Your task to perform on an android device: toggle notifications settings in the gmail app Image 0: 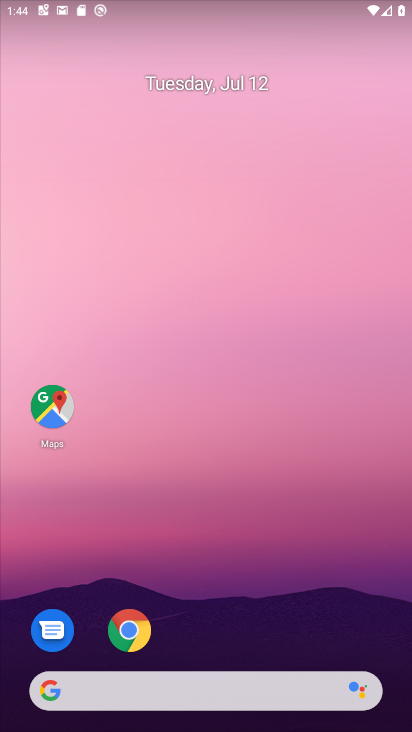
Step 0: drag from (245, 674) to (262, 164)
Your task to perform on an android device: toggle notifications settings in the gmail app Image 1: 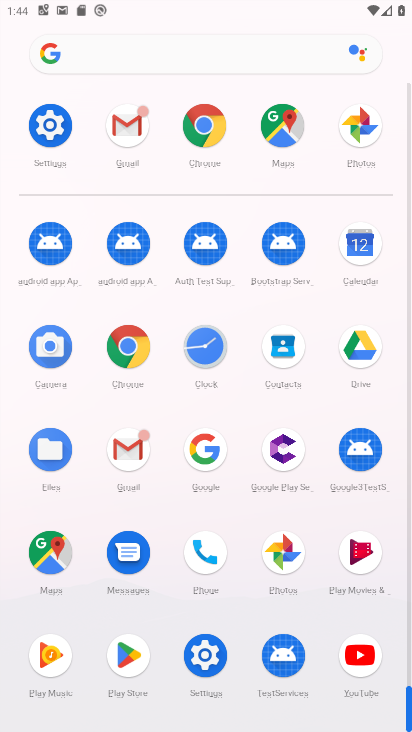
Step 1: click (130, 466)
Your task to perform on an android device: toggle notifications settings in the gmail app Image 2: 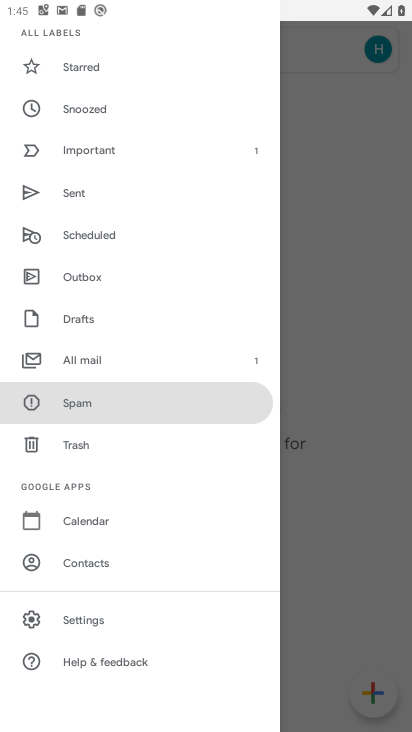
Step 2: click (79, 629)
Your task to perform on an android device: toggle notifications settings in the gmail app Image 3: 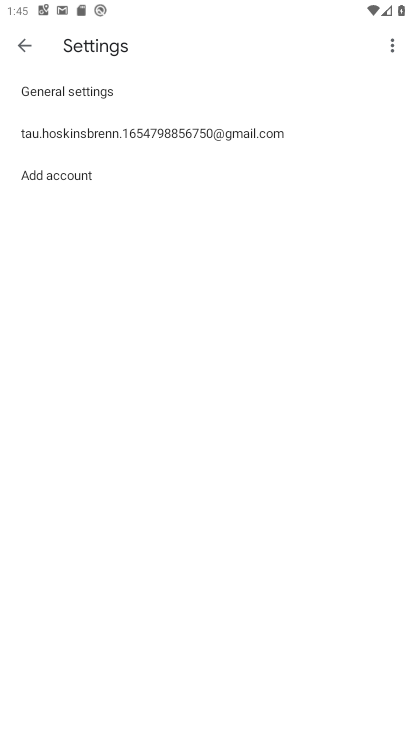
Step 3: click (70, 88)
Your task to perform on an android device: toggle notifications settings in the gmail app Image 4: 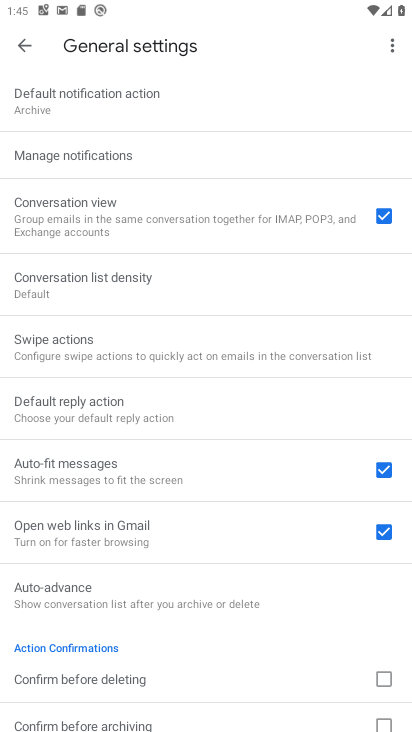
Step 4: click (103, 156)
Your task to perform on an android device: toggle notifications settings in the gmail app Image 5: 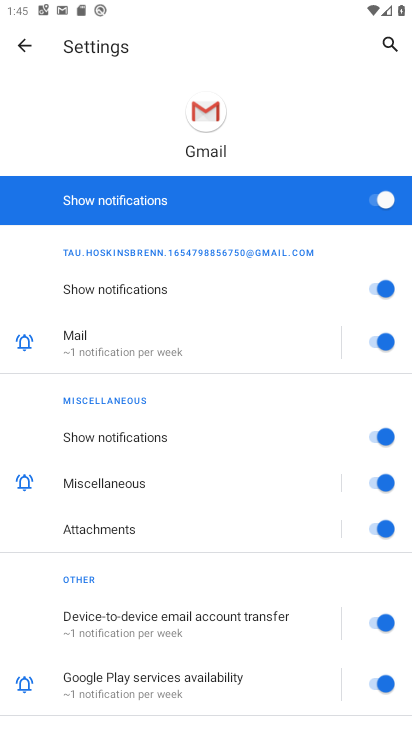
Step 5: click (270, 210)
Your task to perform on an android device: toggle notifications settings in the gmail app Image 6: 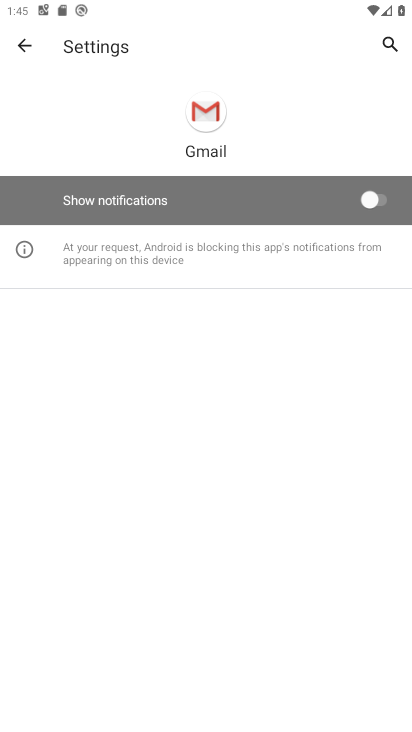
Step 6: task complete